Your task to perform on an android device: uninstall "Google Chrome" Image 0: 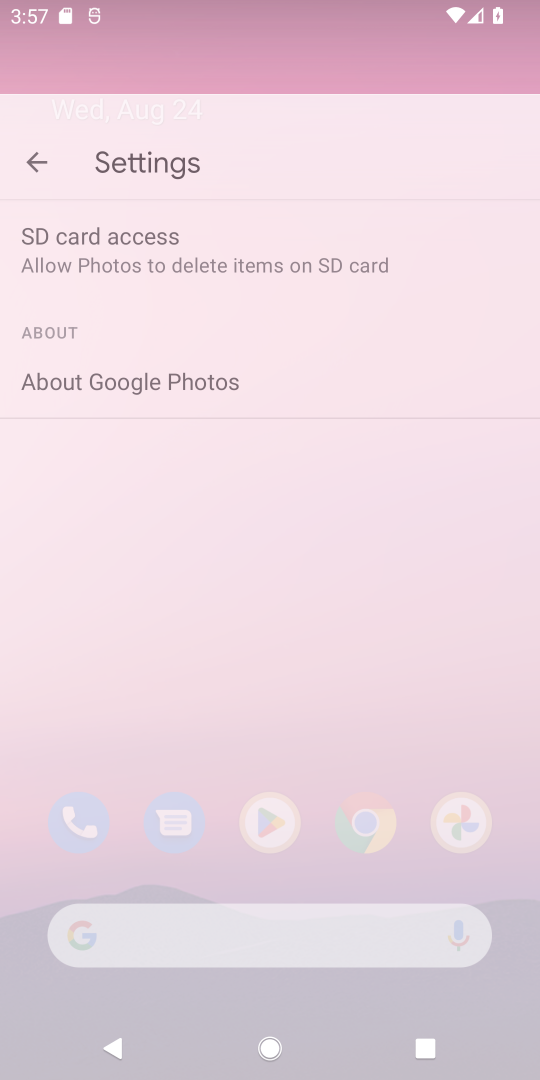
Step 0: press home button
Your task to perform on an android device: uninstall "Google Chrome" Image 1: 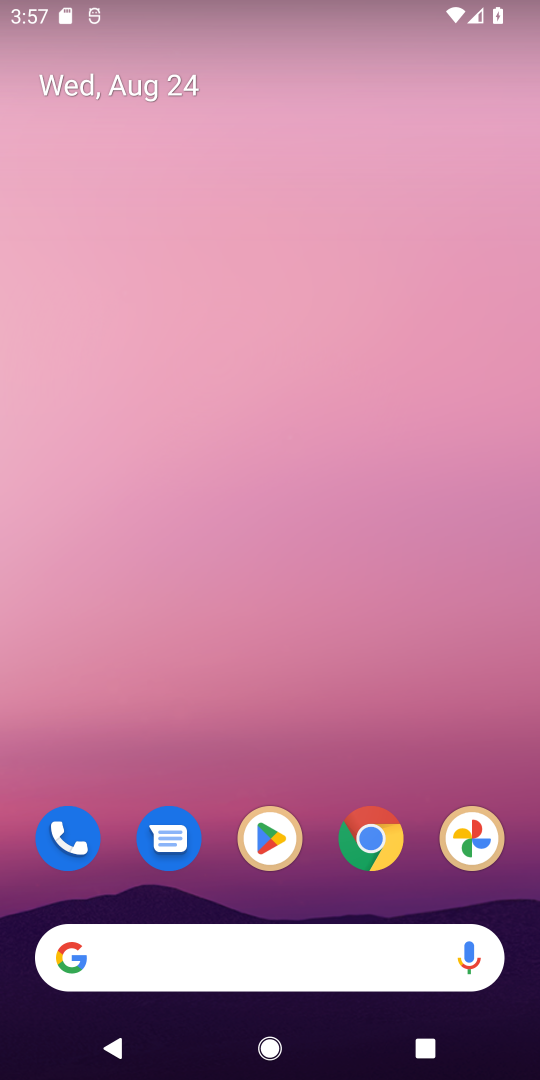
Step 1: click (273, 832)
Your task to perform on an android device: uninstall "Google Chrome" Image 2: 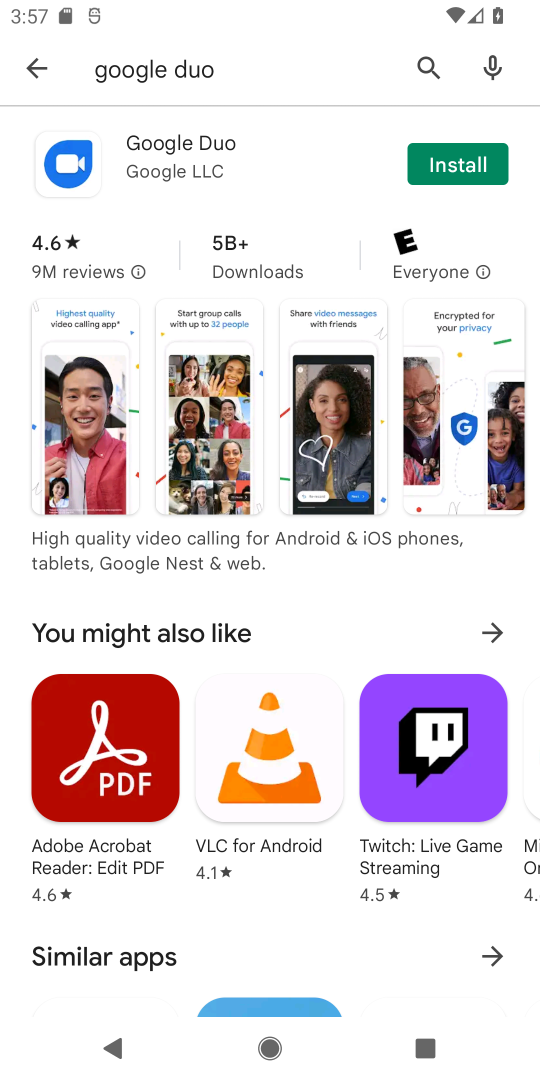
Step 2: click (421, 67)
Your task to perform on an android device: uninstall "Google Chrome" Image 3: 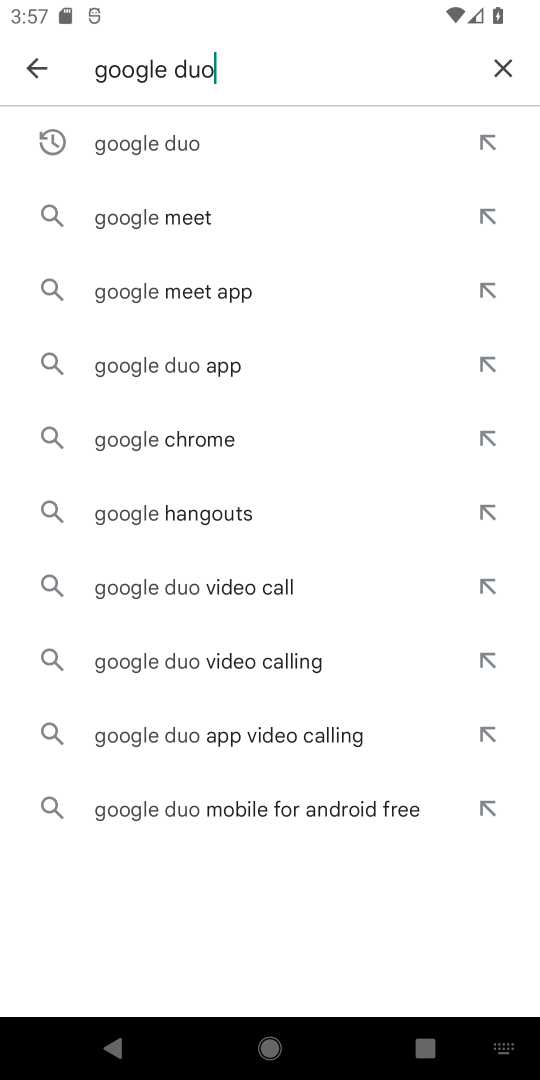
Step 3: click (507, 66)
Your task to perform on an android device: uninstall "Google Chrome" Image 4: 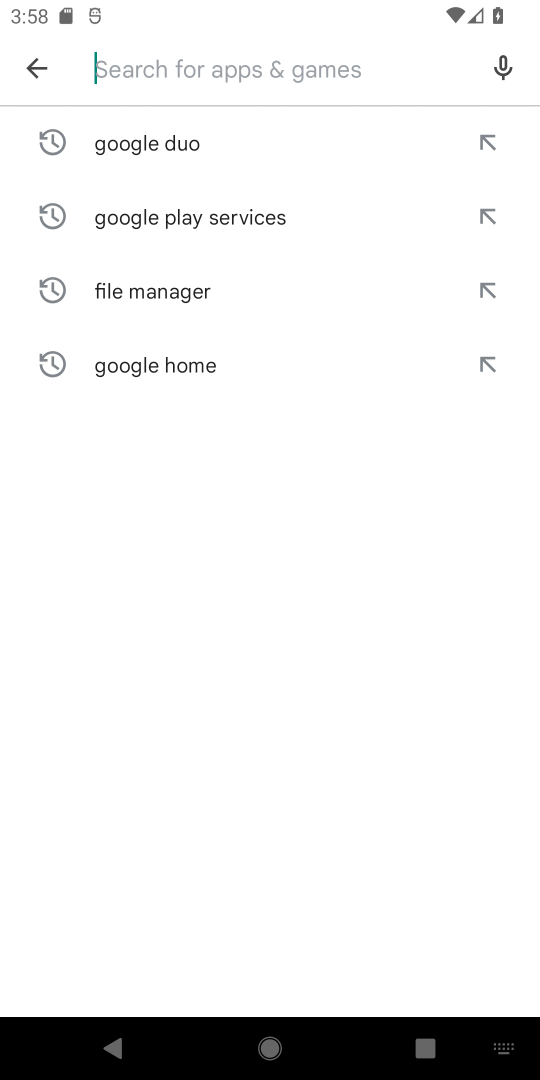
Step 4: type "Google Chrome"
Your task to perform on an android device: uninstall "Google Chrome" Image 5: 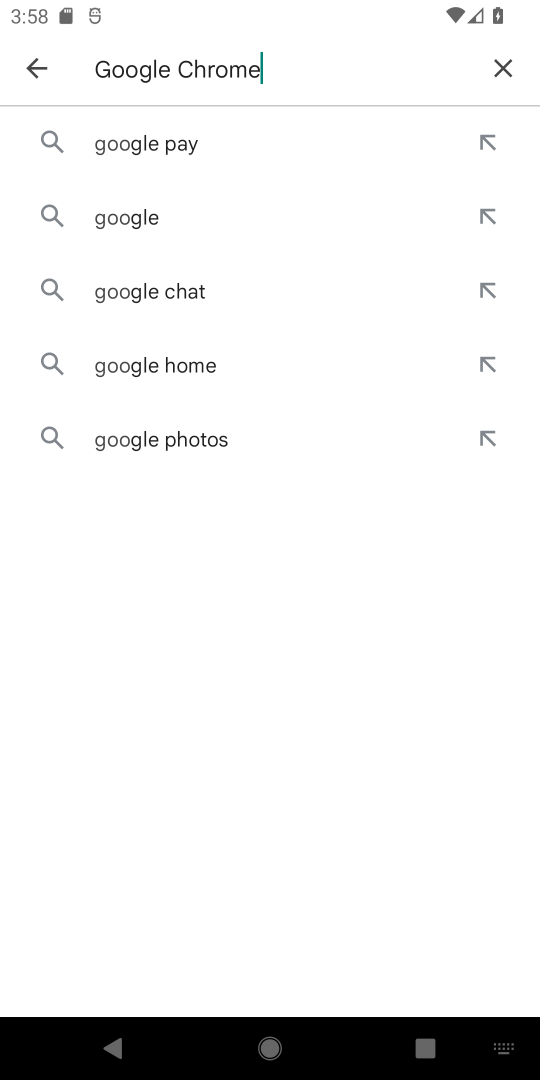
Step 5: type ""
Your task to perform on an android device: uninstall "Google Chrome" Image 6: 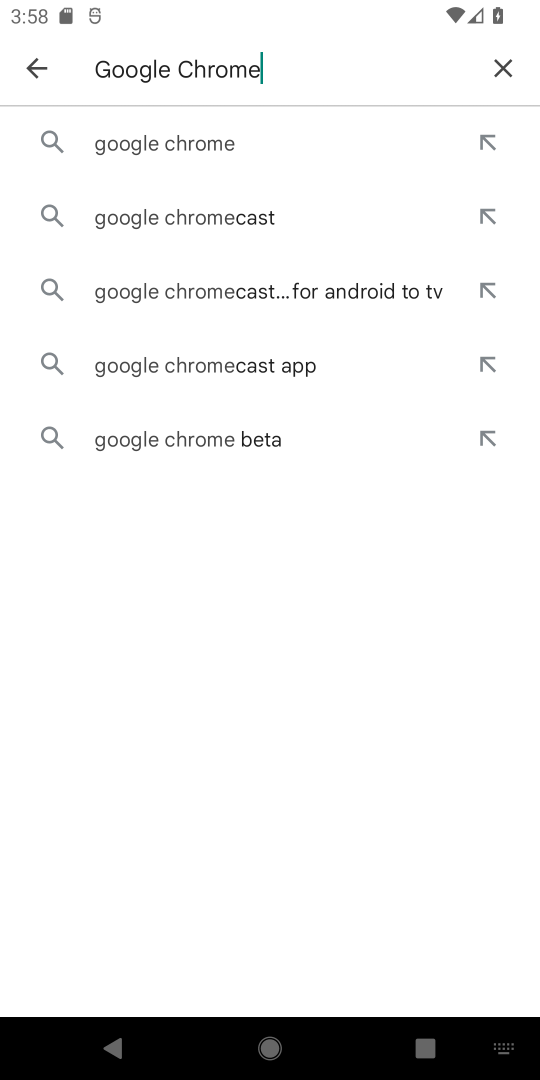
Step 6: click (202, 142)
Your task to perform on an android device: uninstall "Google Chrome" Image 7: 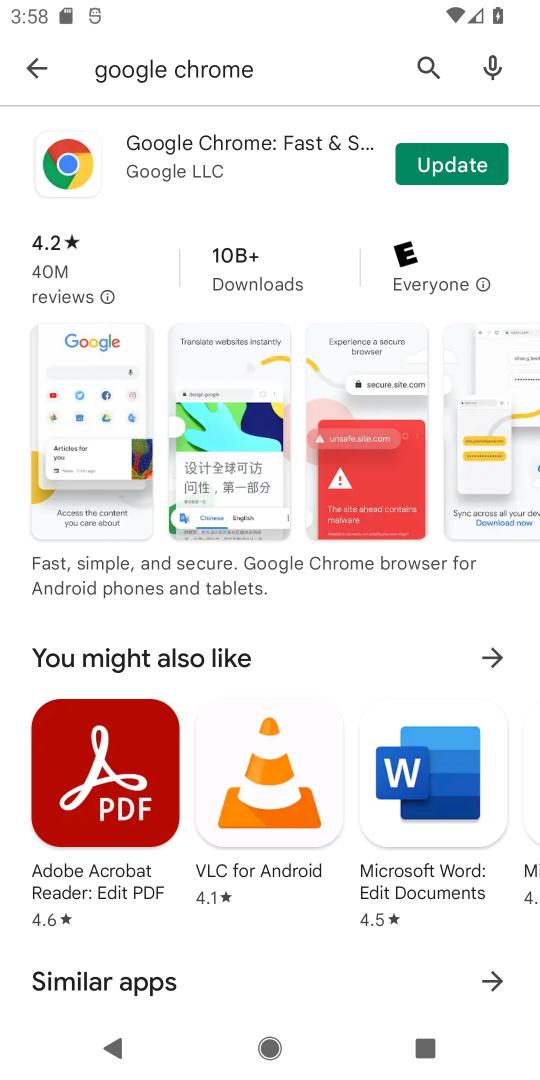
Step 7: task complete